Your task to perform on an android device: add a label to a message in the gmail app Image 0: 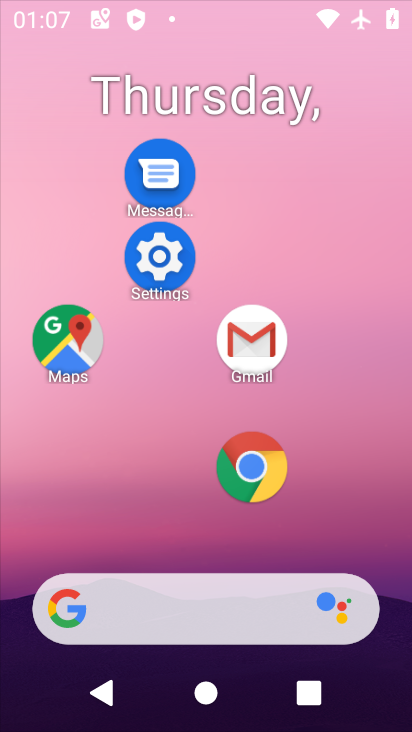
Step 0: drag from (178, 333) to (253, 462)
Your task to perform on an android device: add a label to a message in the gmail app Image 1: 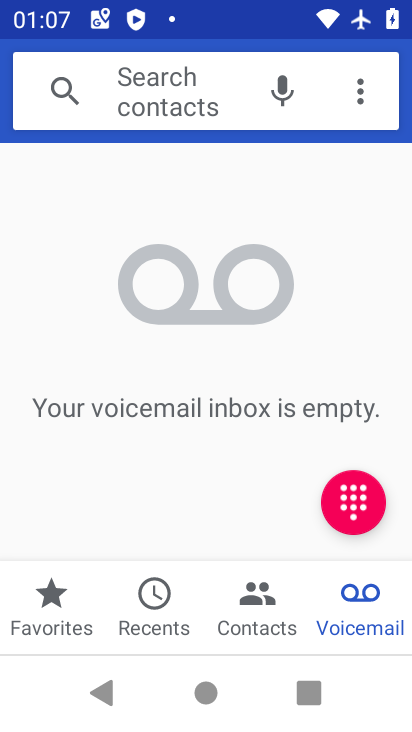
Step 1: drag from (175, 539) to (229, 169)
Your task to perform on an android device: add a label to a message in the gmail app Image 2: 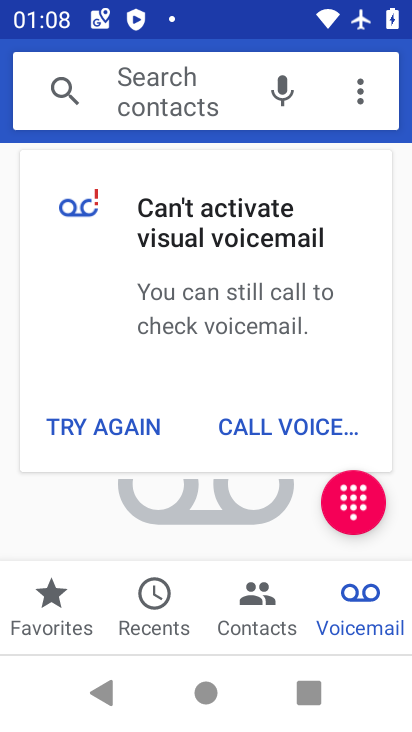
Step 2: click (345, 613)
Your task to perform on an android device: add a label to a message in the gmail app Image 3: 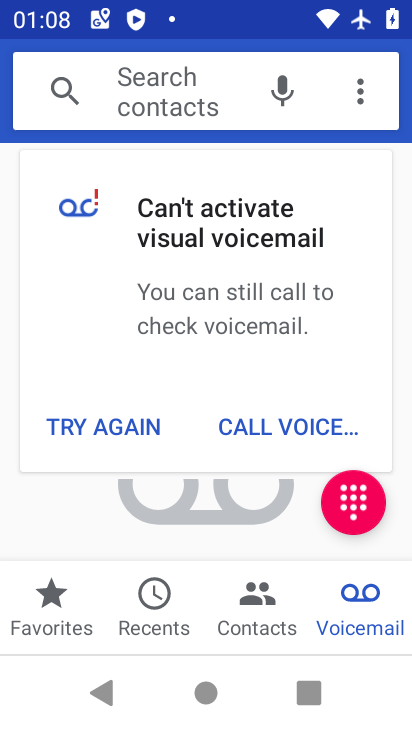
Step 3: click (281, 608)
Your task to perform on an android device: add a label to a message in the gmail app Image 4: 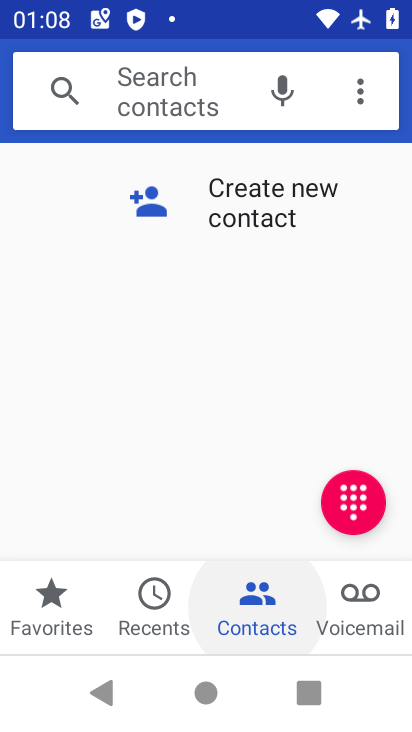
Step 4: click (408, 608)
Your task to perform on an android device: add a label to a message in the gmail app Image 5: 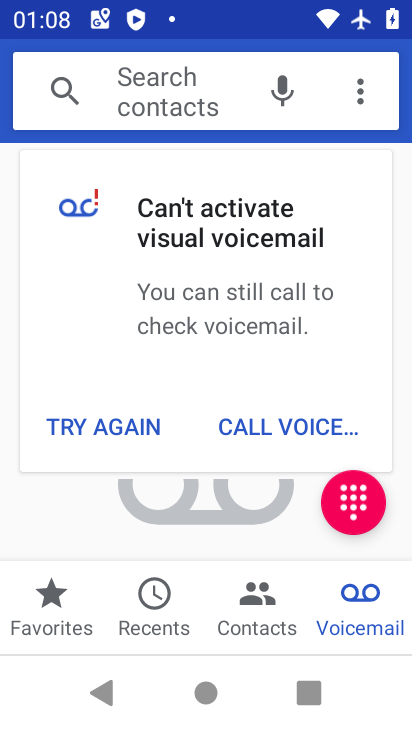
Step 5: click (375, 595)
Your task to perform on an android device: add a label to a message in the gmail app Image 6: 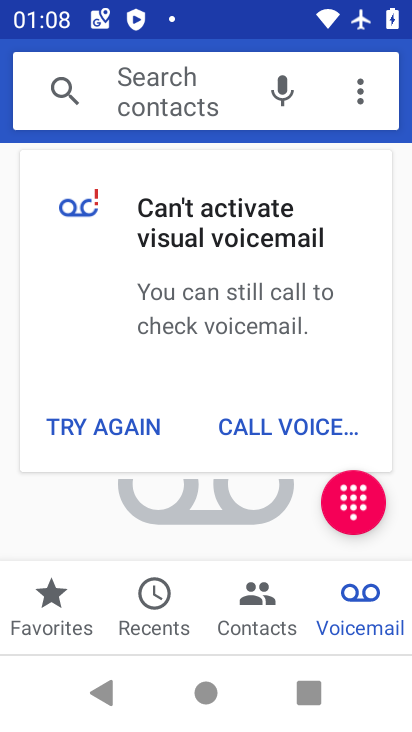
Step 6: click (246, 592)
Your task to perform on an android device: add a label to a message in the gmail app Image 7: 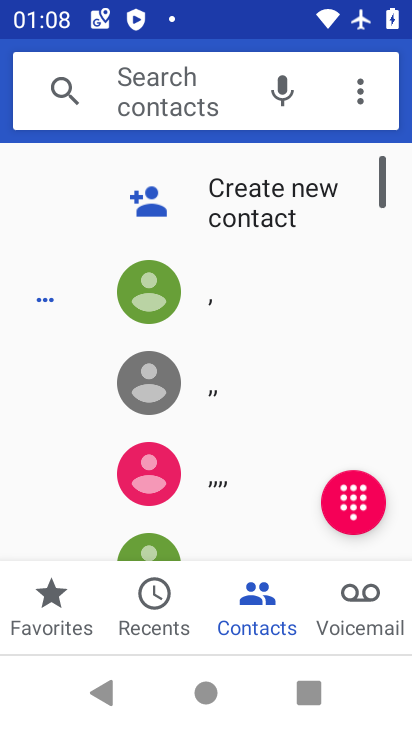
Step 7: click (369, 627)
Your task to perform on an android device: add a label to a message in the gmail app Image 8: 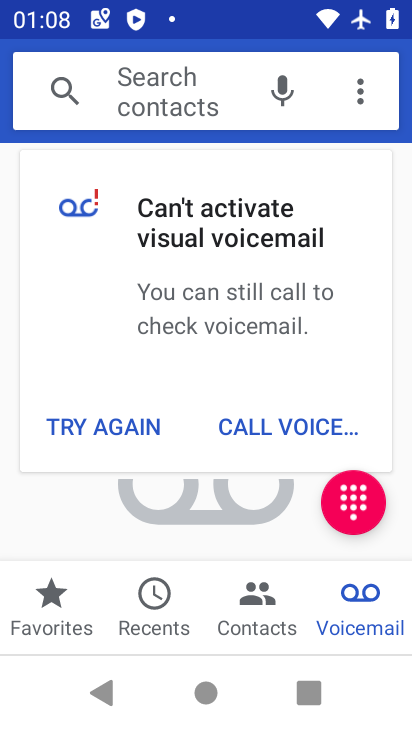
Step 8: drag from (243, 565) to (275, 384)
Your task to perform on an android device: add a label to a message in the gmail app Image 9: 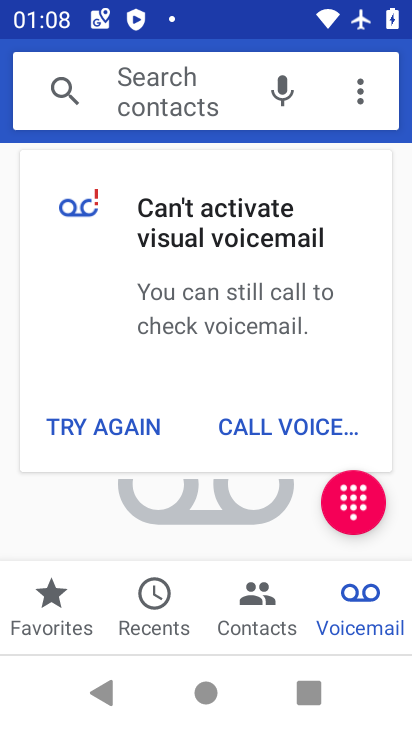
Step 9: drag from (232, 522) to (219, 232)
Your task to perform on an android device: add a label to a message in the gmail app Image 10: 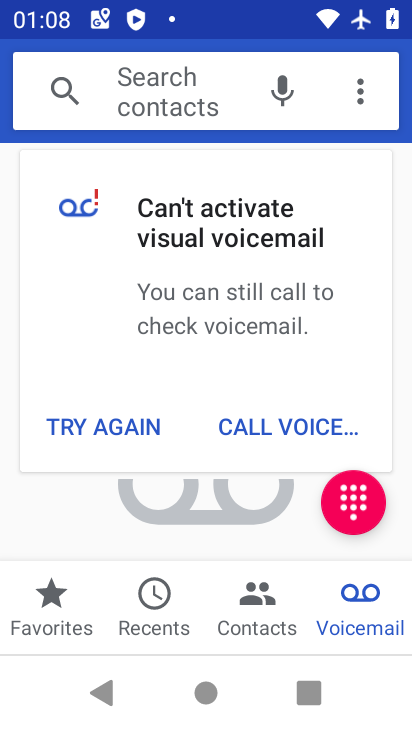
Step 10: drag from (227, 544) to (219, 127)
Your task to perform on an android device: add a label to a message in the gmail app Image 11: 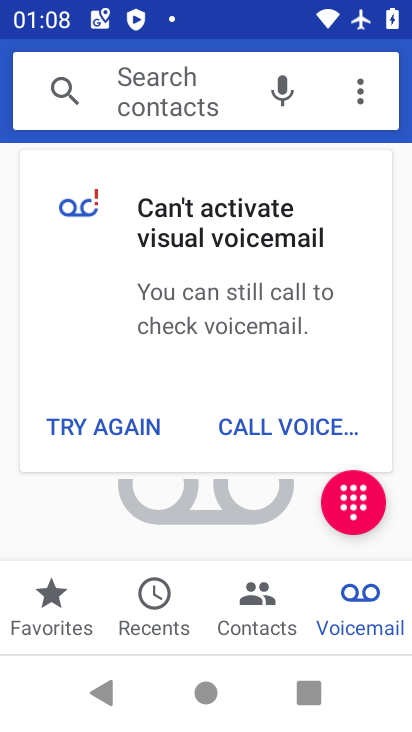
Step 11: drag from (189, 536) to (243, 333)
Your task to perform on an android device: add a label to a message in the gmail app Image 12: 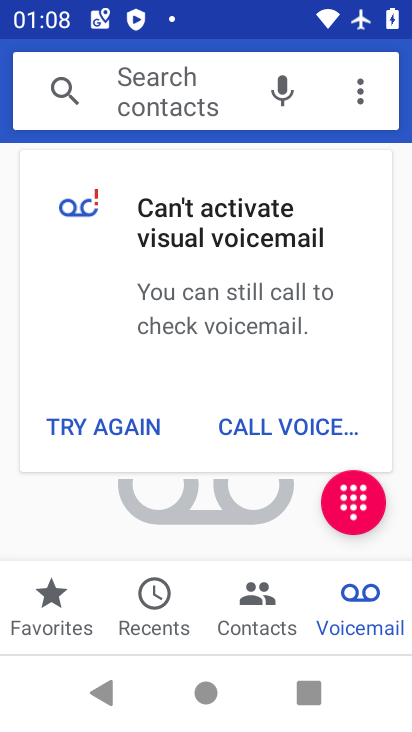
Step 12: drag from (187, 555) to (233, 186)
Your task to perform on an android device: add a label to a message in the gmail app Image 13: 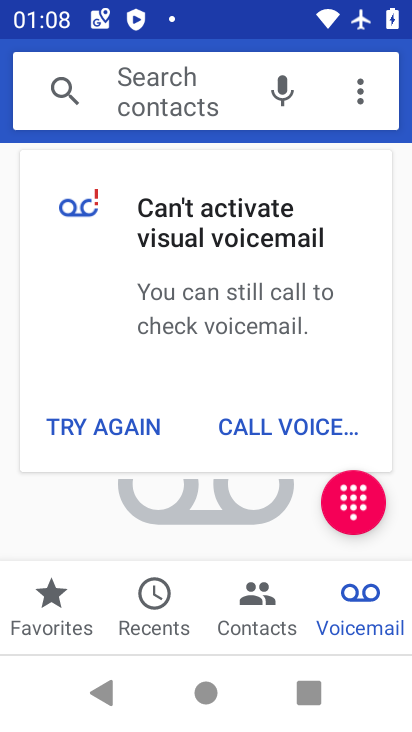
Step 13: drag from (209, 504) to (217, 233)
Your task to perform on an android device: add a label to a message in the gmail app Image 14: 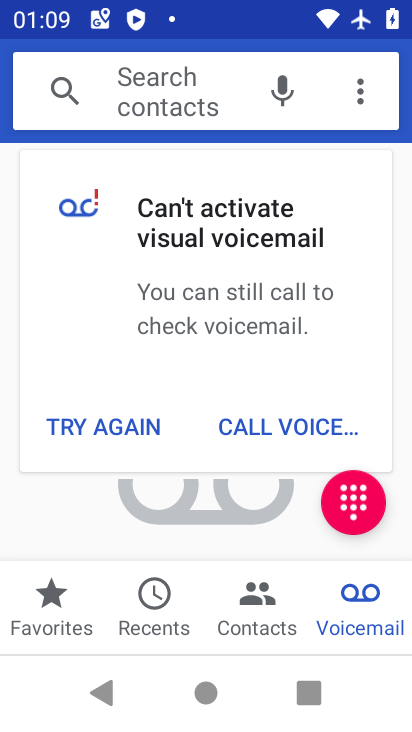
Step 14: press home button
Your task to perform on an android device: add a label to a message in the gmail app Image 15: 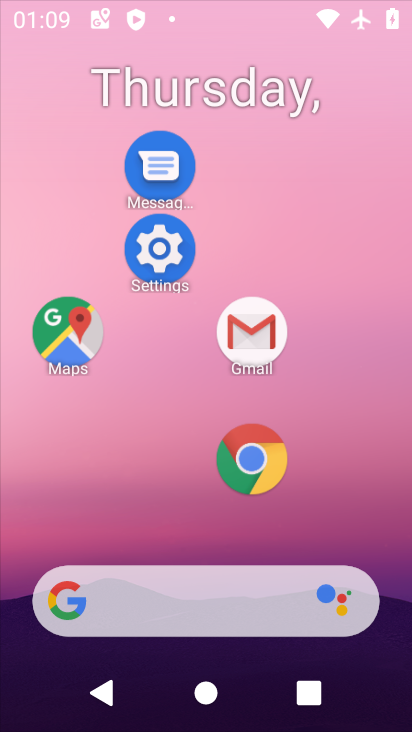
Step 15: press home button
Your task to perform on an android device: add a label to a message in the gmail app Image 16: 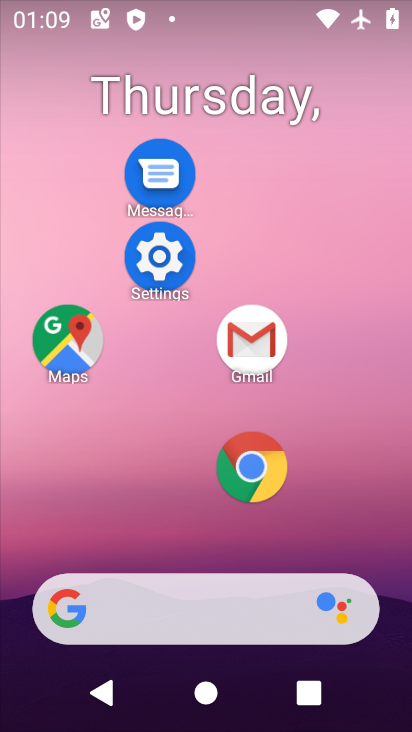
Step 16: drag from (178, 569) to (328, 41)
Your task to perform on an android device: add a label to a message in the gmail app Image 17: 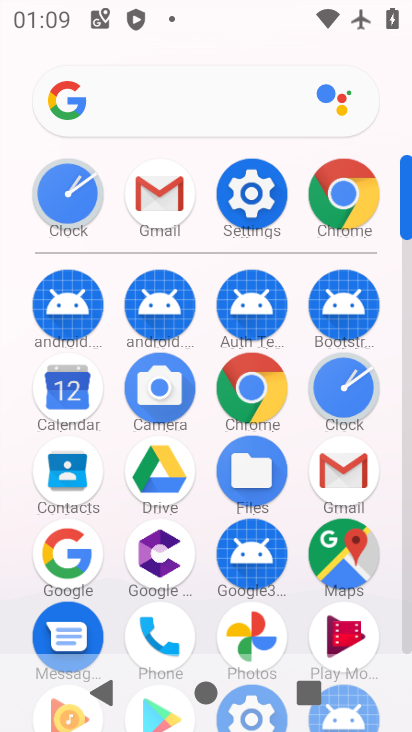
Step 17: click (339, 474)
Your task to perform on an android device: add a label to a message in the gmail app Image 18: 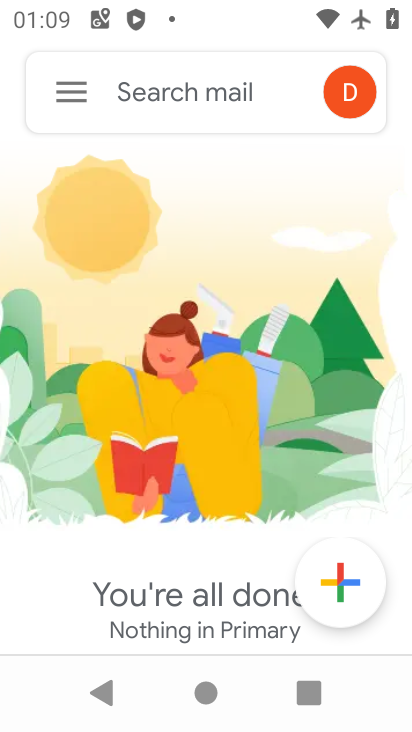
Step 18: task complete